Your task to perform on an android device: change the clock display to digital Image 0: 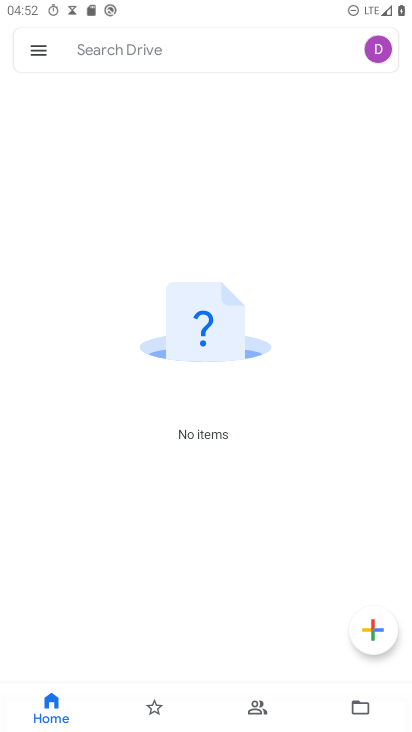
Step 0: press home button
Your task to perform on an android device: change the clock display to digital Image 1: 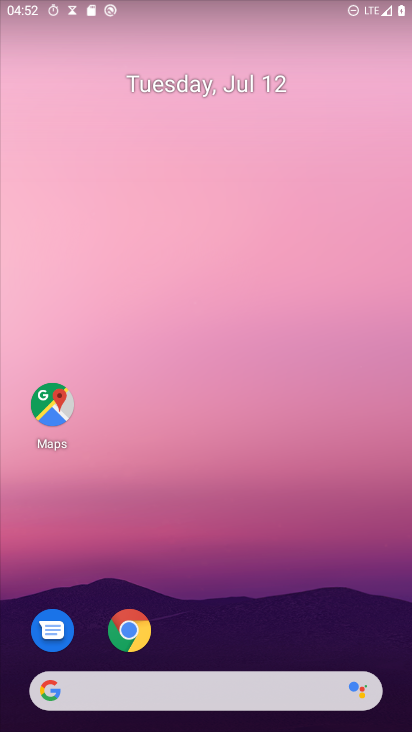
Step 1: drag from (275, 683) to (369, 30)
Your task to perform on an android device: change the clock display to digital Image 2: 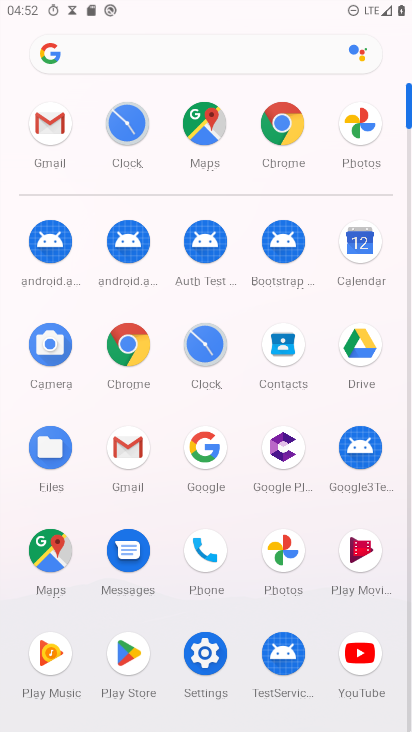
Step 2: click (204, 355)
Your task to perform on an android device: change the clock display to digital Image 3: 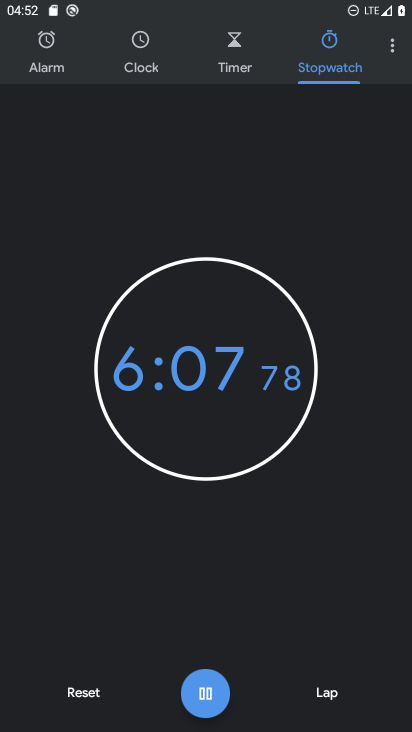
Step 3: click (381, 50)
Your task to perform on an android device: change the clock display to digital Image 4: 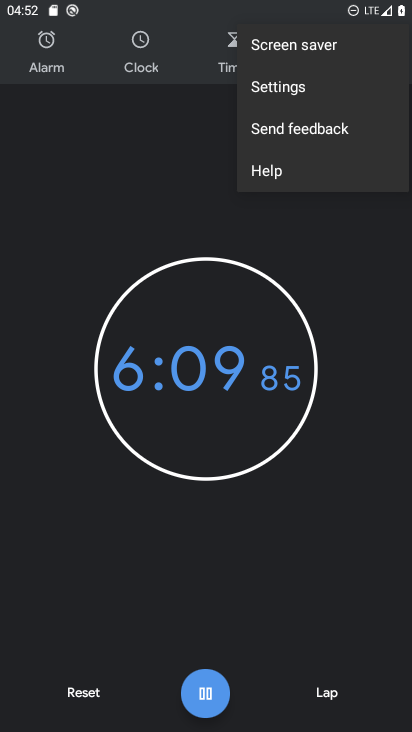
Step 4: click (332, 89)
Your task to perform on an android device: change the clock display to digital Image 5: 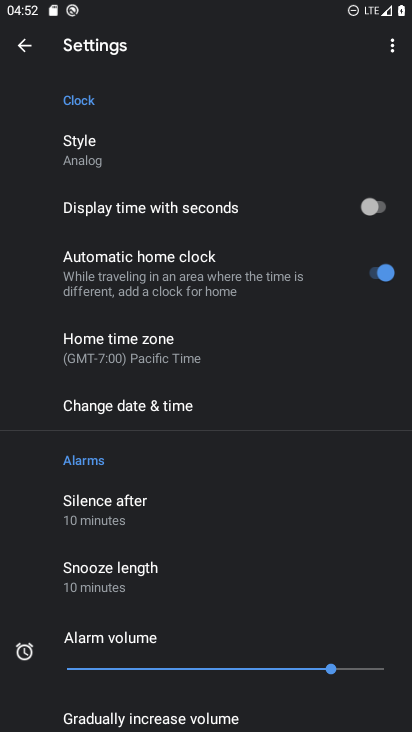
Step 5: click (138, 157)
Your task to perform on an android device: change the clock display to digital Image 6: 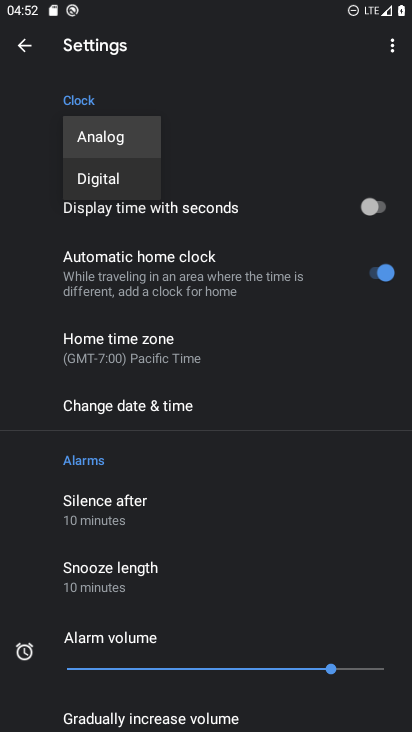
Step 6: click (91, 176)
Your task to perform on an android device: change the clock display to digital Image 7: 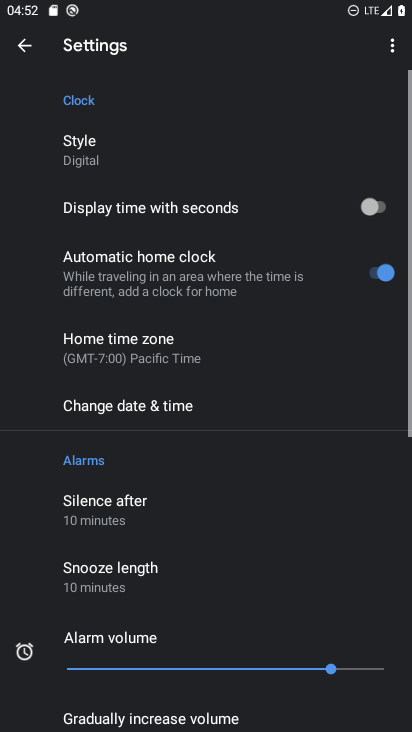
Step 7: task complete